Your task to perform on an android device: Open the web browser Image 0: 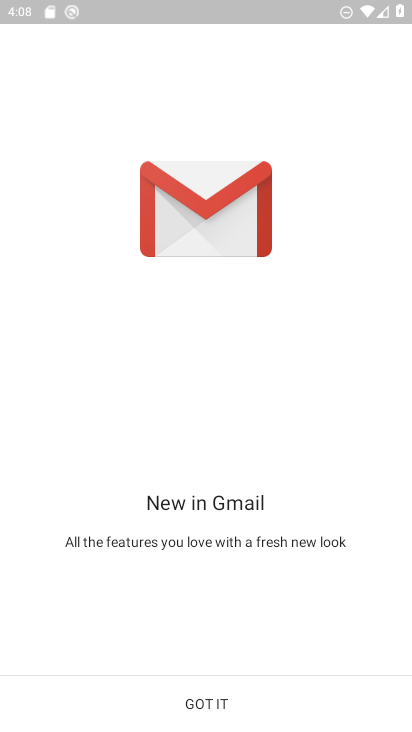
Step 0: click (214, 705)
Your task to perform on an android device: Open the web browser Image 1: 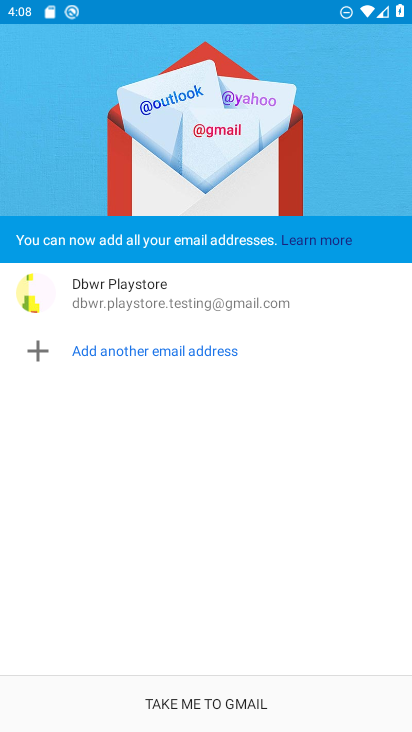
Step 1: press home button
Your task to perform on an android device: Open the web browser Image 2: 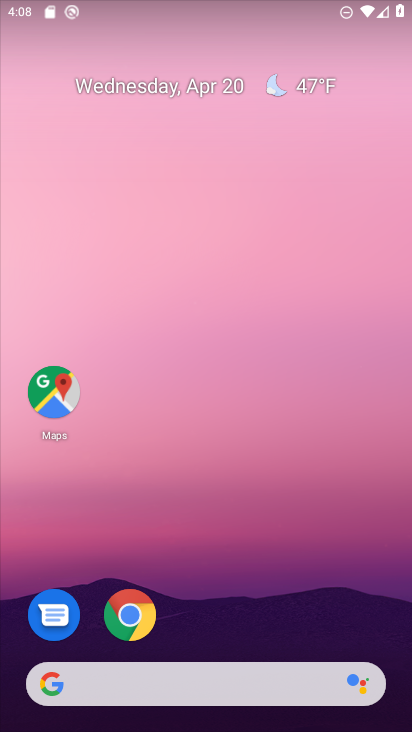
Step 2: click (118, 626)
Your task to perform on an android device: Open the web browser Image 3: 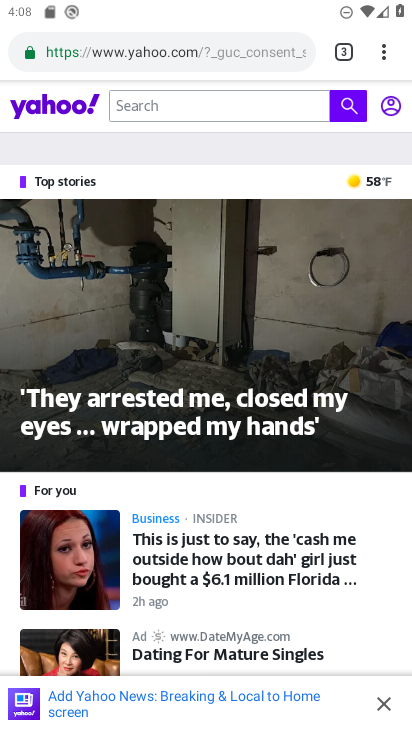
Step 3: task complete